Your task to perform on an android device: turn off translation in the chrome app Image 0: 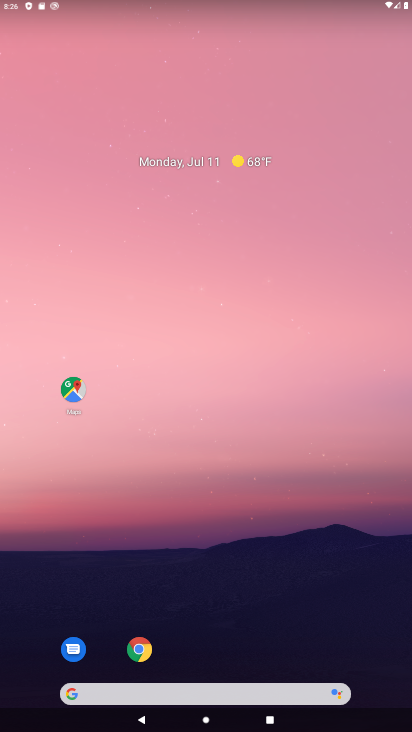
Step 0: drag from (292, 711) to (131, 164)
Your task to perform on an android device: turn off translation in the chrome app Image 1: 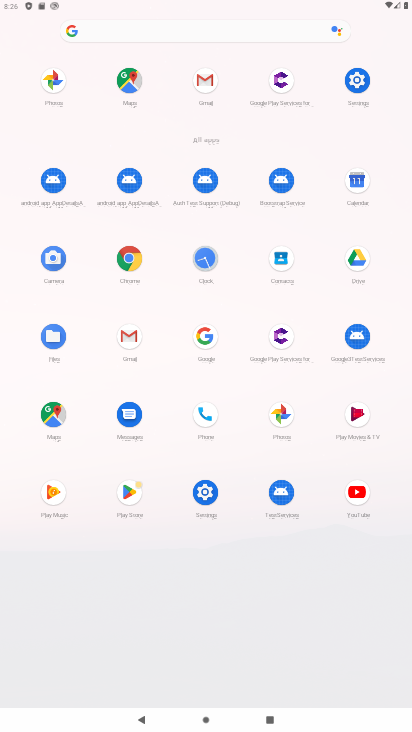
Step 1: click (124, 268)
Your task to perform on an android device: turn off translation in the chrome app Image 2: 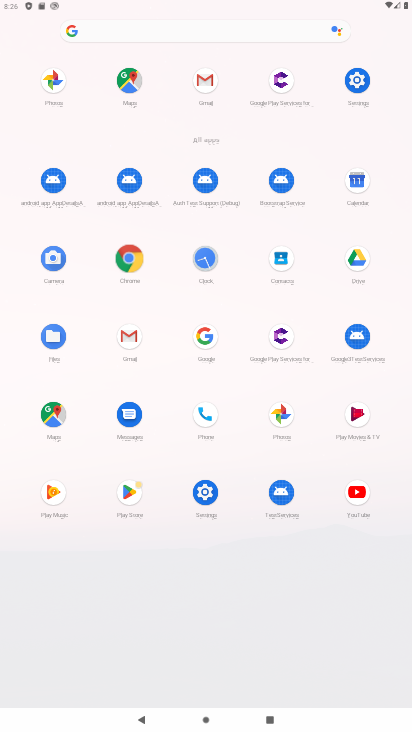
Step 2: click (124, 268)
Your task to perform on an android device: turn off translation in the chrome app Image 3: 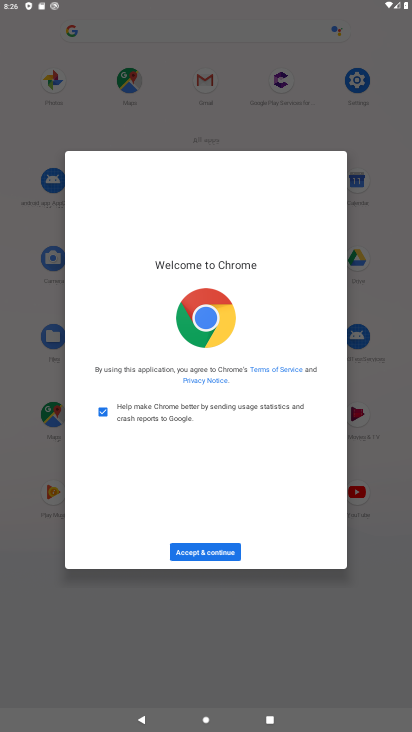
Step 3: click (215, 555)
Your task to perform on an android device: turn off translation in the chrome app Image 4: 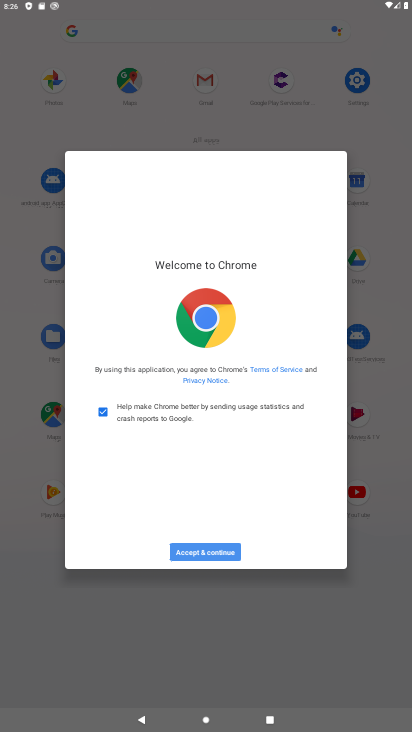
Step 4: click (215, 555)
Your task to perform on an android device: turn off translation in the chrome app Image 5: 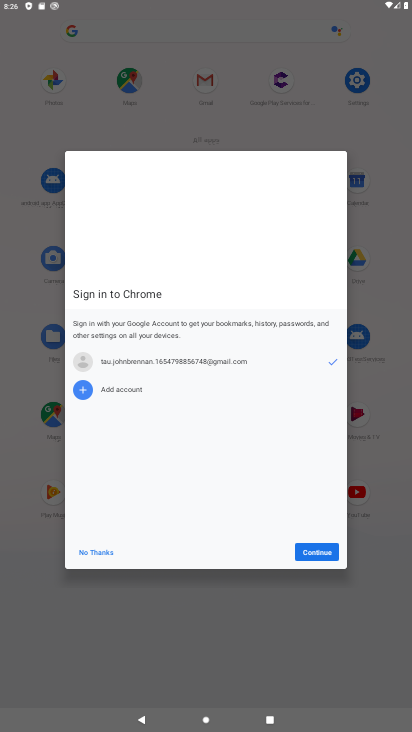
Step 5: click (309, 552)
Your task to perform on an android device: turn off translation in the chrome app Image 6: 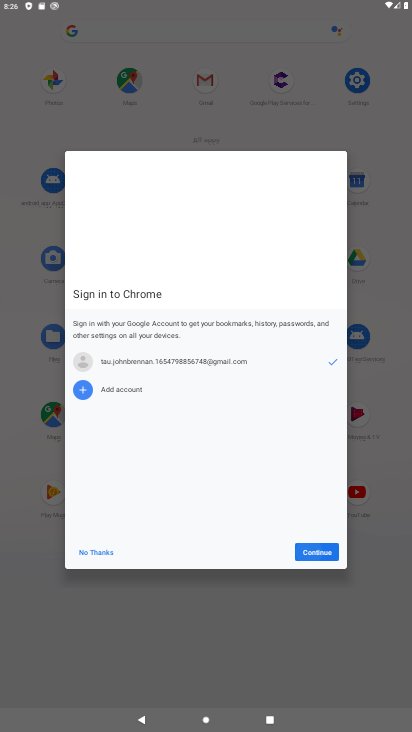
Step 6: click (308, 548)
Your task to perform on an android device: turn off translation in the chrome app Image 7: 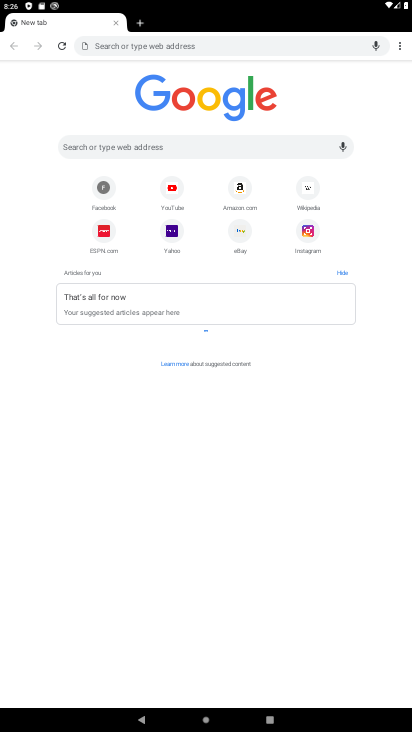
Step 7: drag from (400, 41) to (309, 214)
Your task to perform on an android device: turn off translation in the chrome app Image 8: 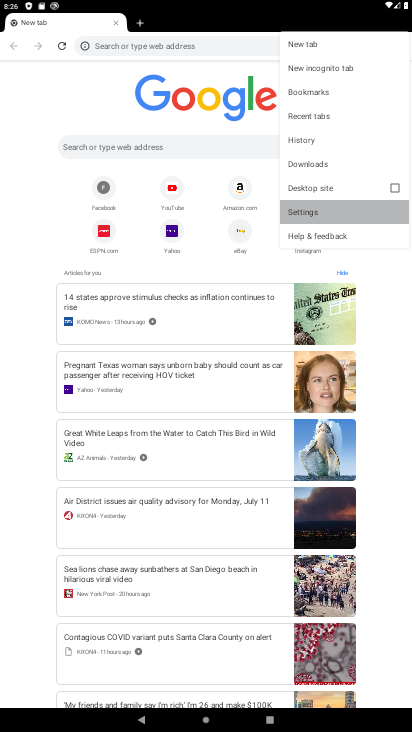
Step 8: click (308, 215)
Your task to perform on an android device: turn off translation in the chrome app Image 9: 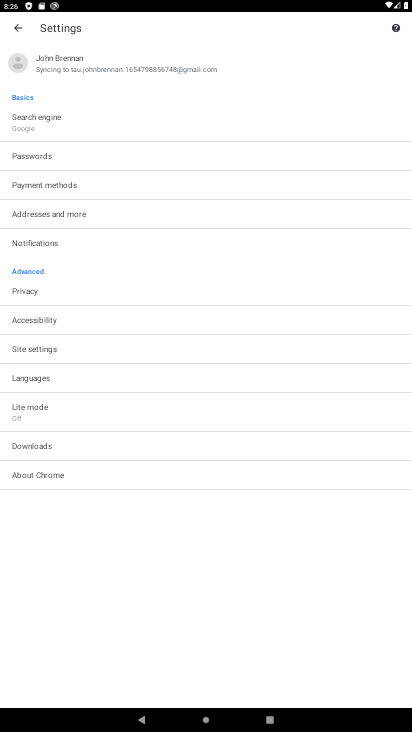
Step 9: click (29, 375)
Your task to perform on an android device: turn off translation in the chrome app Image 10: 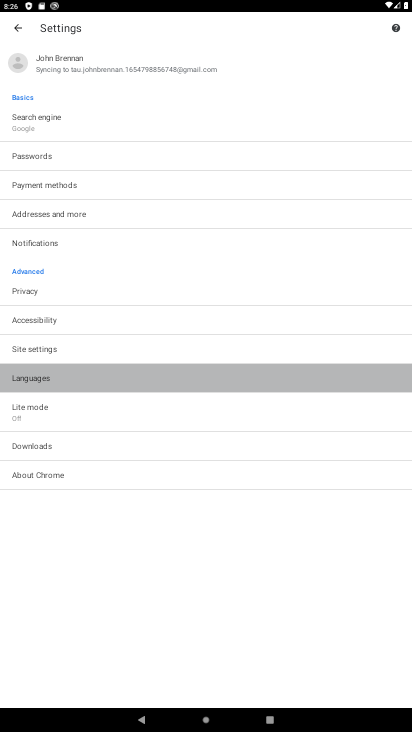
Step 10: click (29, 375)
Your task to perform on an android device: turn off translation in the chrome app Image 11: 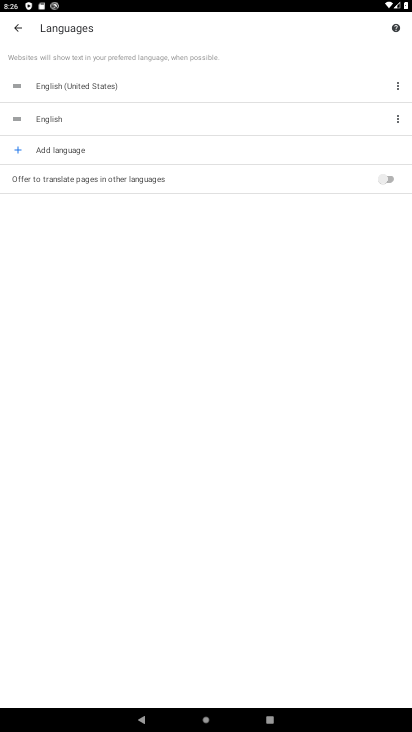
Step 11: click (386, 183)
Your task to perform on an android device: turn off translation in the chrome app Image 12: 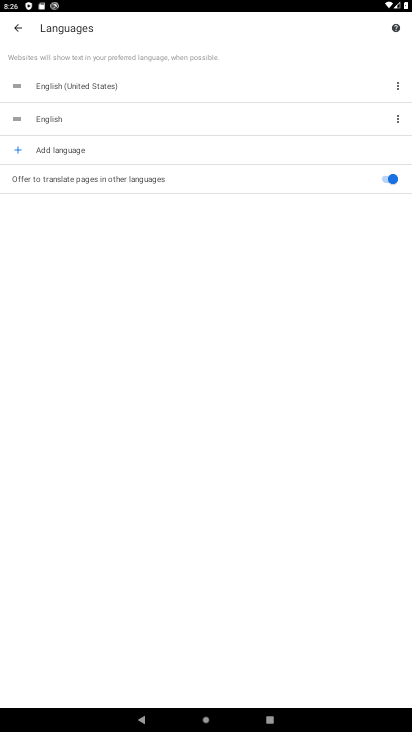
Step 12: click (395, 178)
Your task to perform on an android device: turn off translation in the chrome app Image 13: 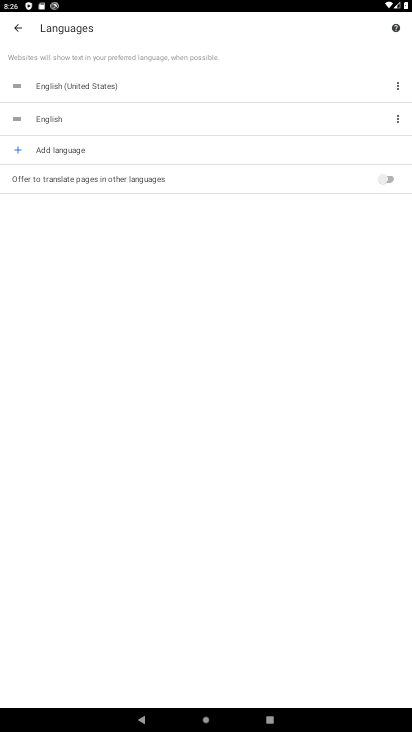
Step 13: task complete